Your task to perform on an android device: Go to battery settings Image 0: 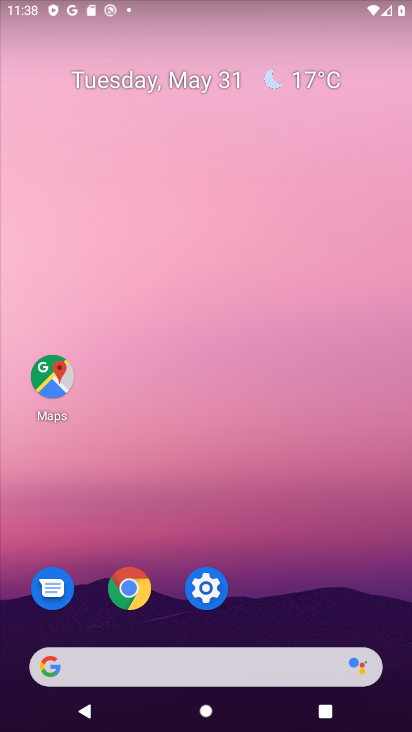
Step 0: press home button
Your task to perform on an android device: Go to battery settings Image 1: 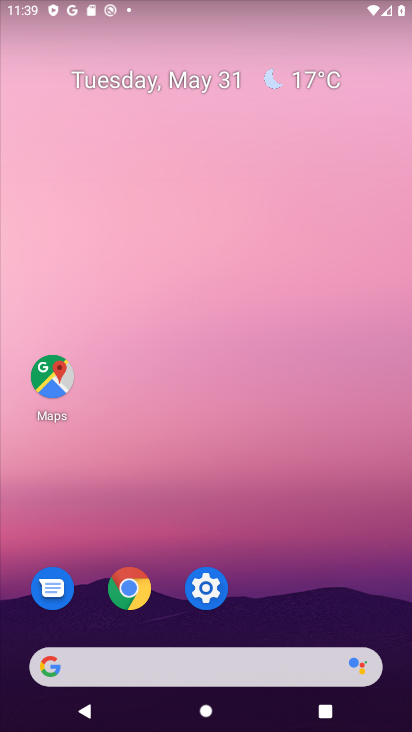
Step 1: click (212, 589)
Your task to perform on an android device: Go to battery settings Image 2: 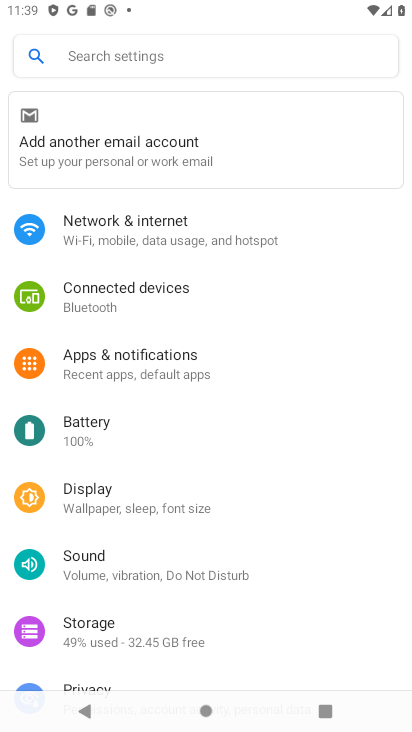
Step 2: click (114, 436)
Your task to perform on an android device: Go to battery settings Image 3: 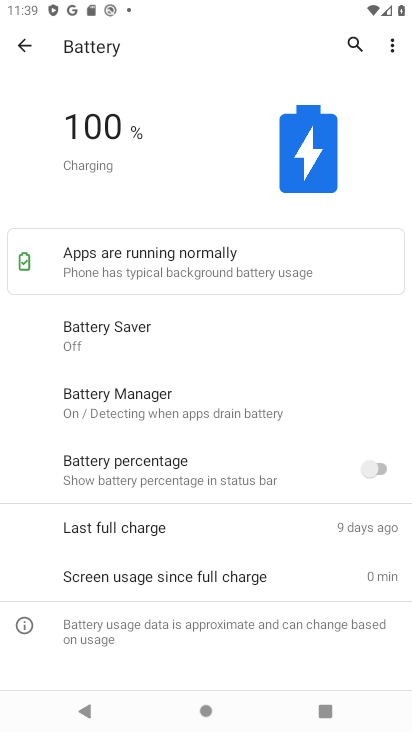
Step 3: task complete